Your task to perform on an android device: open a new tab in the chrome app Image 0: 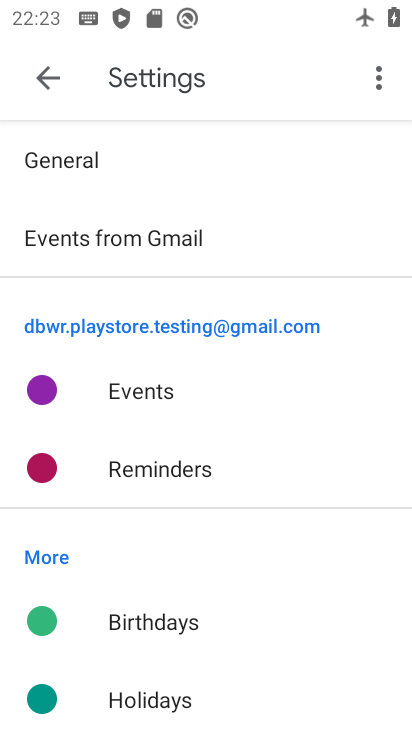
Step 0: press home button
Your task to perform on an android device: open a new tab in the chrome app Image 1: 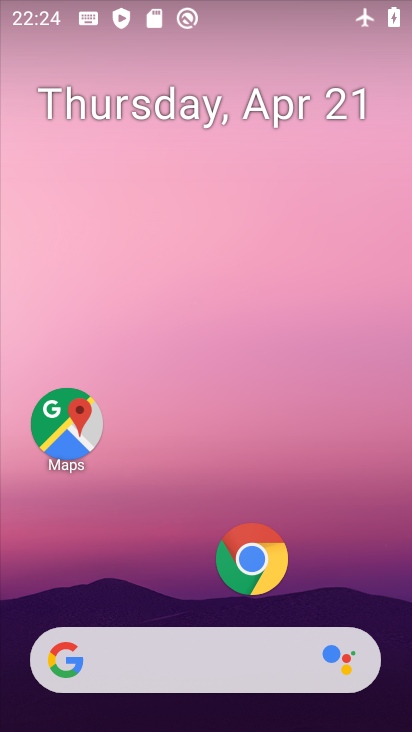
Step 1: click (254, 554)
Your task to perform on an android device: open a new tab in the chrome app Image 2: 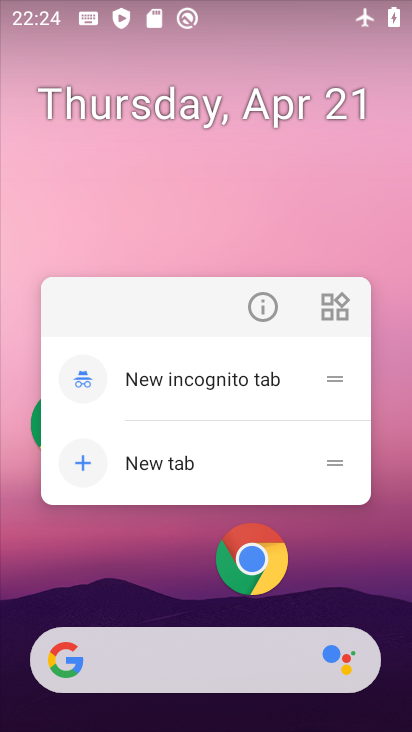
Step 2: click (265, 306)
Your task to perform on an android device: open a new tab in the chrome app Image 3: 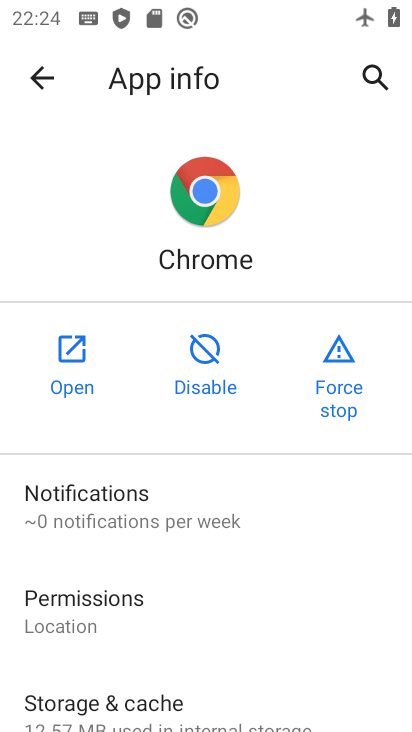
Step 3: click (63, 373)
Your task to perform on an android device: open a new tab in the chrome app Image 4: 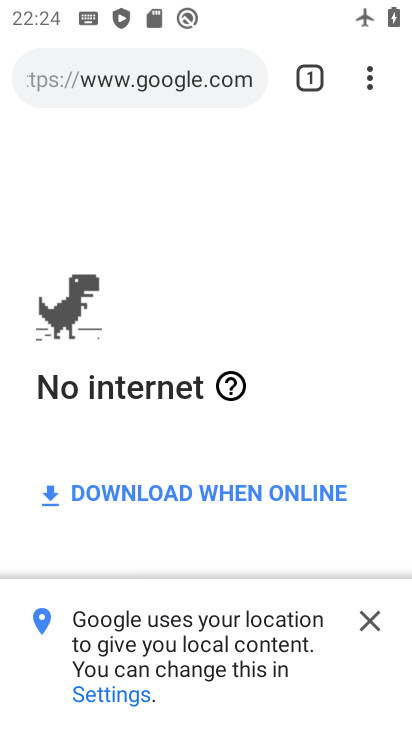
Step 4: click (371, 74)
Your task to perform on an android device: open a new tab in the chrome app Image 5: 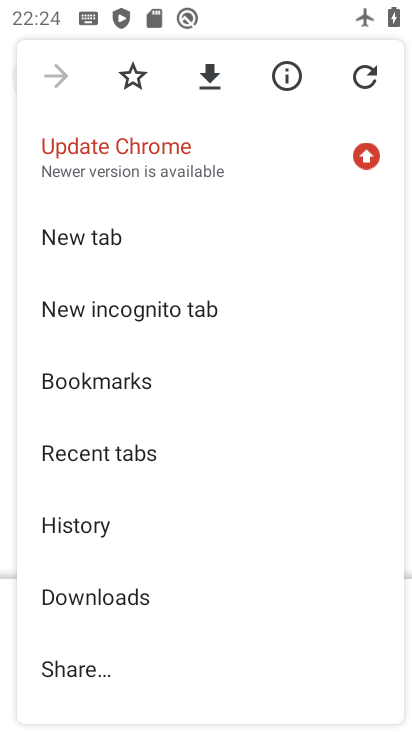
Step 5: click (147, 246)
Your task to perform on an android device: open a new tab in the chrome app Image 6: 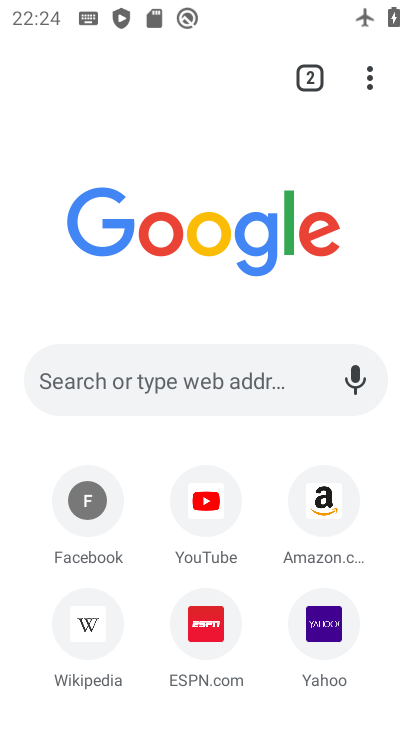
Step 6: task complete